Your task to perform on an android device: Check the news Image 0: 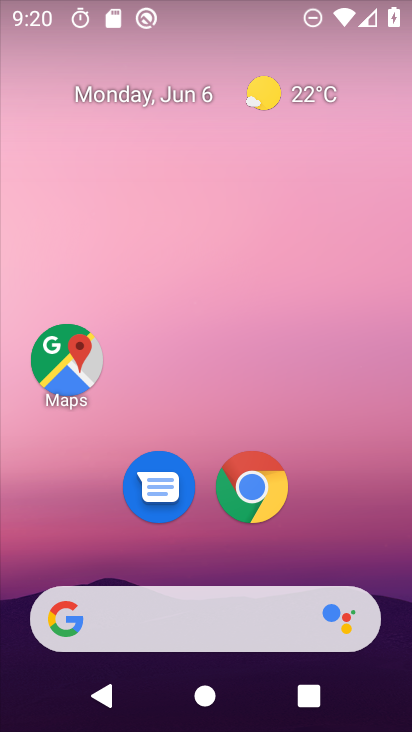
Step 0: drag from (396, 629) to (284, 82)
Your task to perform on an android device: Check the news Image 1: 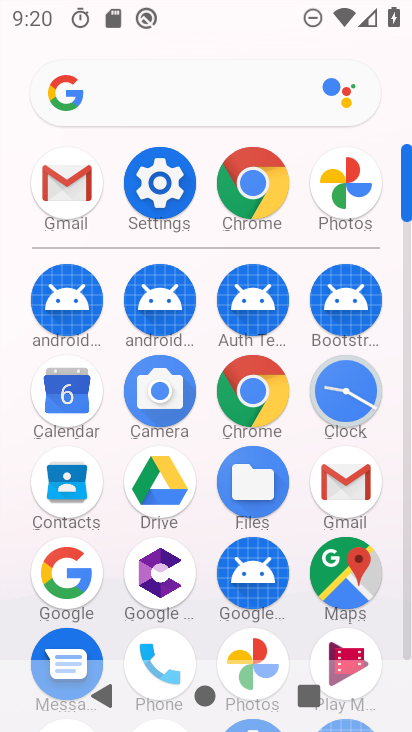
Step 1: click (247, 184)
Your task to perform on an android device: Check the news Image 2: 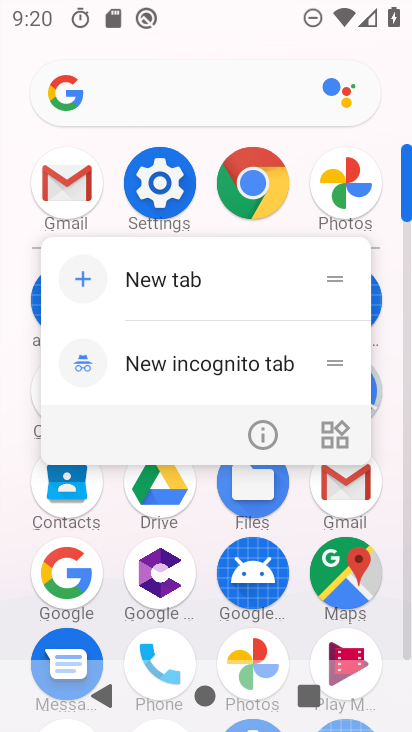
Step 2: click (247, 184)
Your task to perform on an android device: Check the news Image 3: 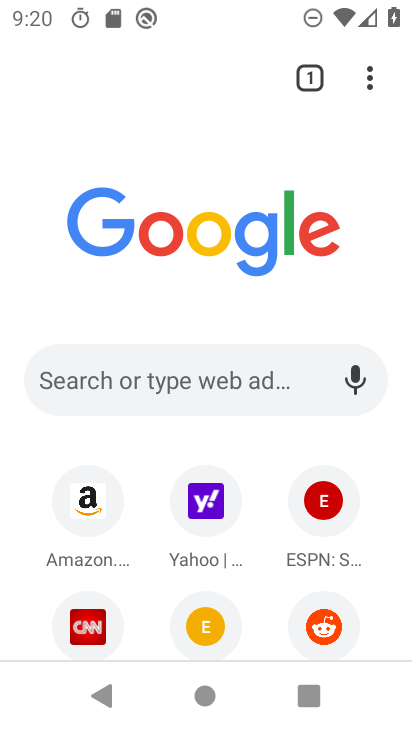
Step 3: click (184, 390)
Your task to perform on an android device: Check the news Image 4: 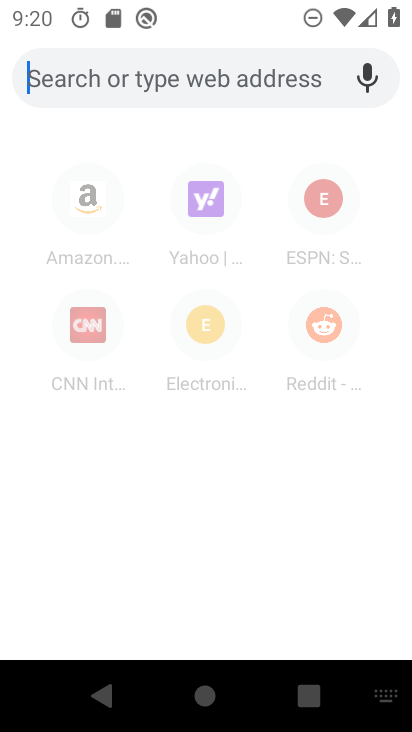
Step 4: press home button
Your task to perform on an android device: Check the news Image 5: 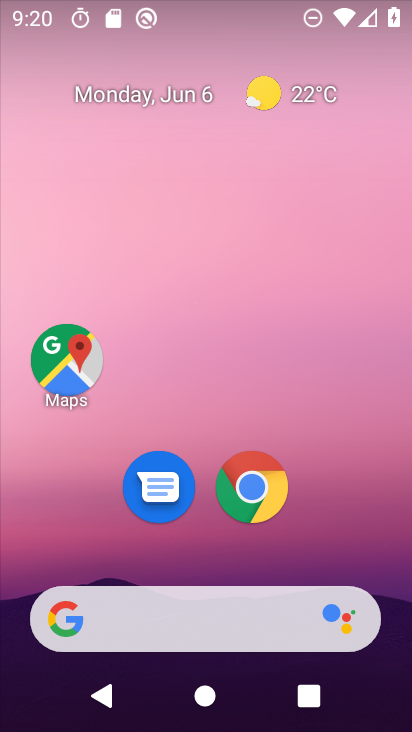
Step 5: drag from (402, 628) to (237, 22)
Your task to perform on an android device: Check the news Image 6: 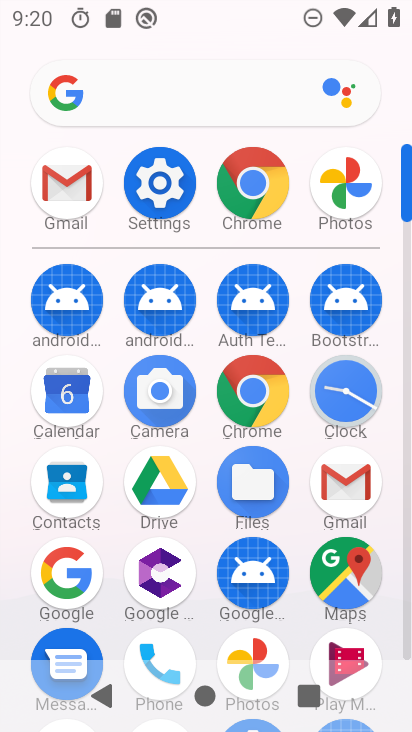
Step 6: click (65, 585)
Your task to perform on an android device: Check the news Image 7: 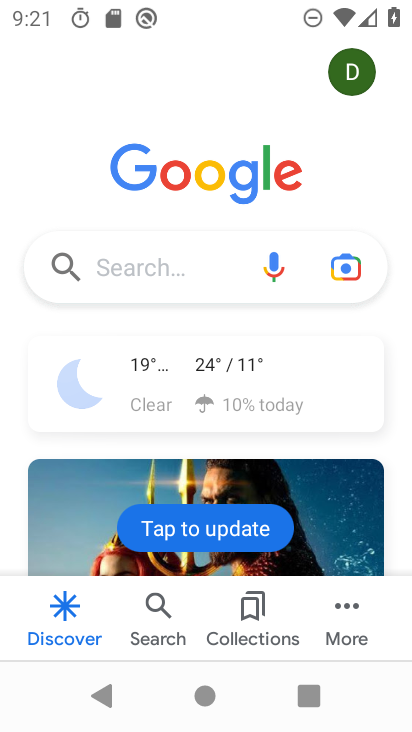
Step 7: click (150, 248)
Your task to perform on an android device: Check the news Image 8: 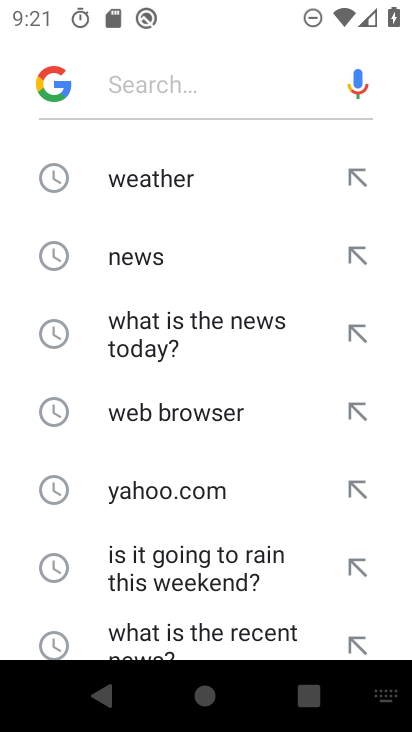
Step 8: click (183, 261)
Your task to perform on an android device: Check the news Image 9: 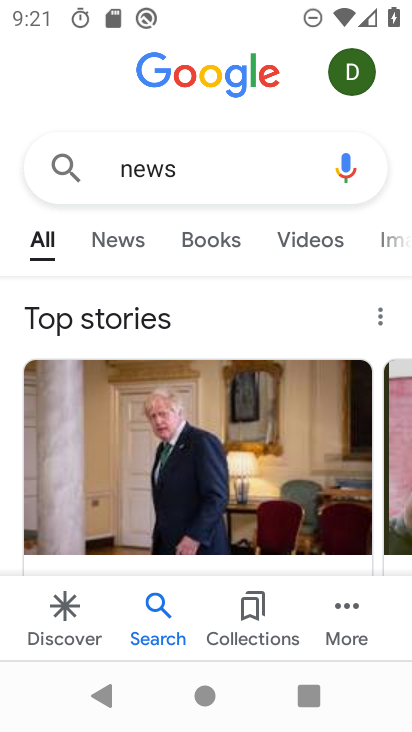
Step 9: task complete